Your task to perform on an android device: Open the calendar and show me this week's events Image 0: 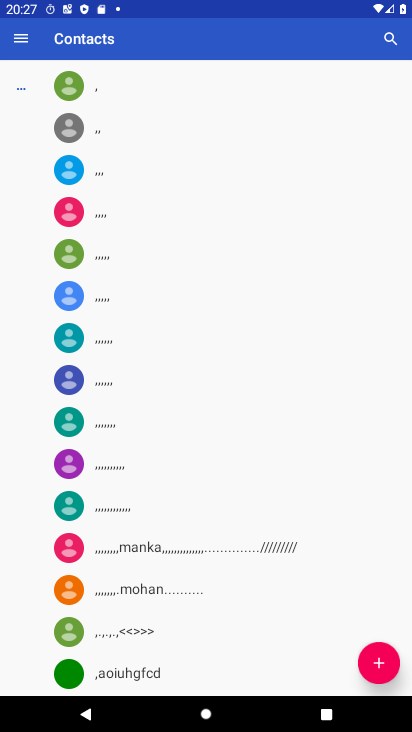
Step 0: press home button
Your task to perform on an android device: Open the calendar and show me this week's events Image 1: 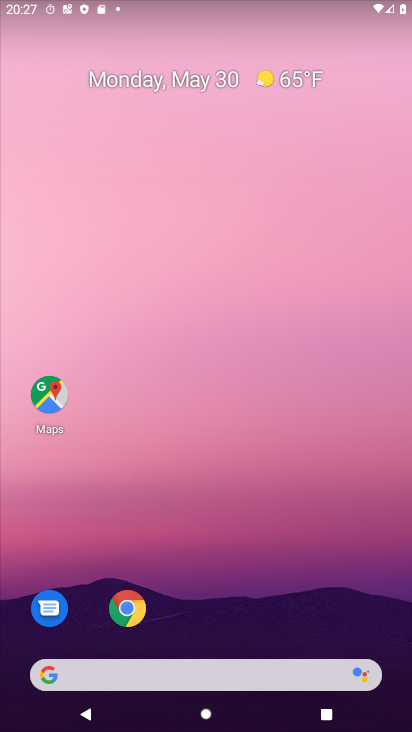
Step 1: drag from (195, 620) to (203, 150)
Your task to perform on an android device: Open the calendar and show me this week's events Image 2: 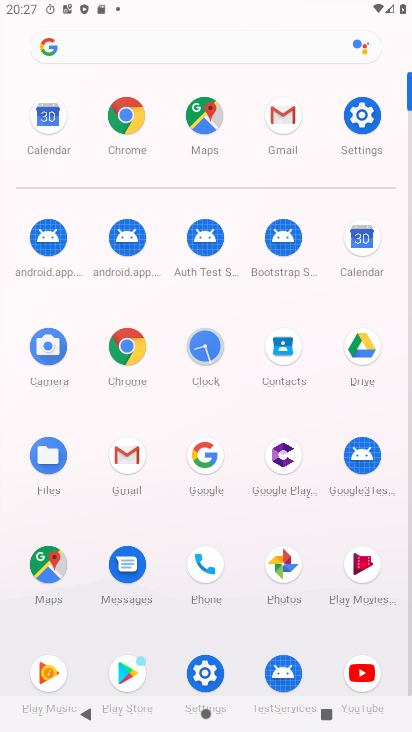
Step 2: click (49, 141)
Your task to perform on an android device: Open the calendar and show me this week's events Image 3: 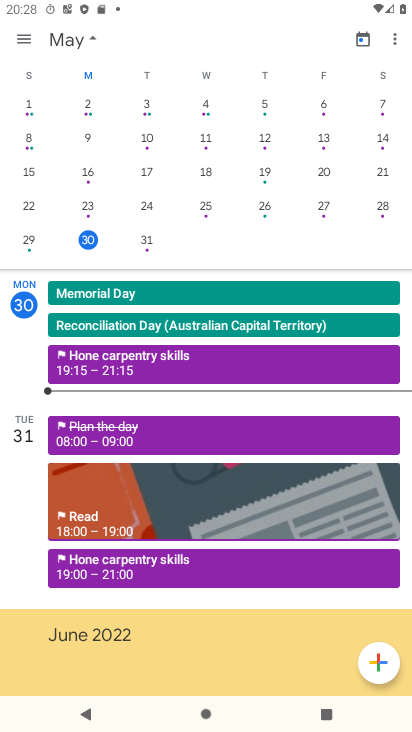
Step 3: drag from (342, 191) to (9, 155)
Your task to perform on an android device: Open the calendar and show me this week's events Image 4: 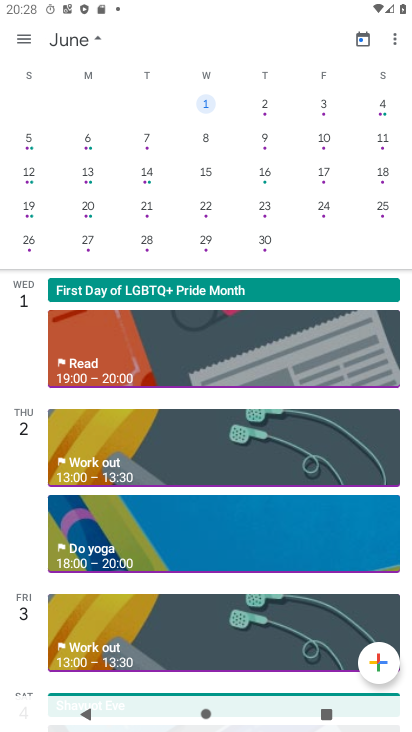
Step 4: click (383, 103)
Your task to perform on an android device: Open the calendar and show me this week's events Image 5: 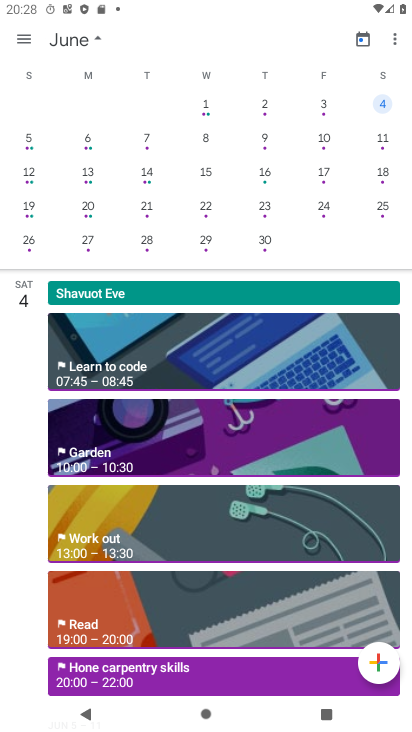
Step 5: click (199, 99)
Your task to perform on an android device: Open the calendar and show me this week's events Image 6: 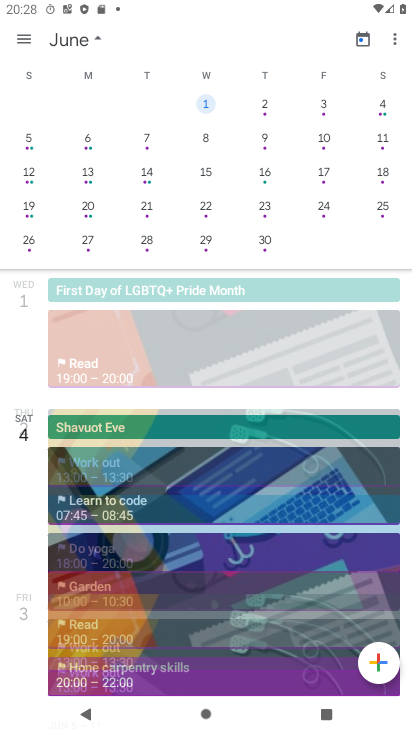
Step 6: task complete